Your task to perform on an android device: add a contact in the contacts app Image 0: 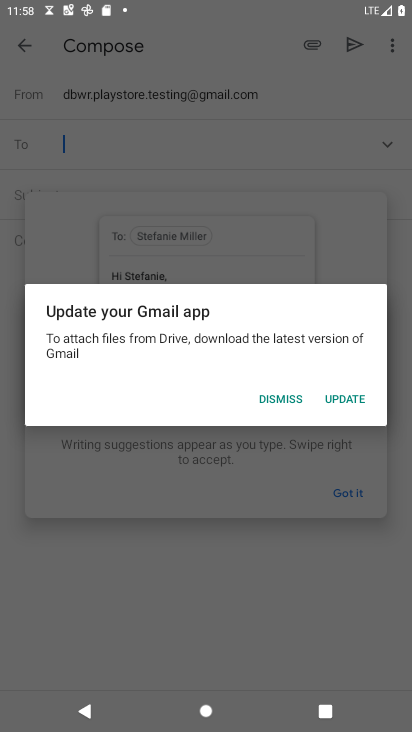
Step 0: press home button
Your task to perform on an android device: add a contact in the contacts app Image 1: 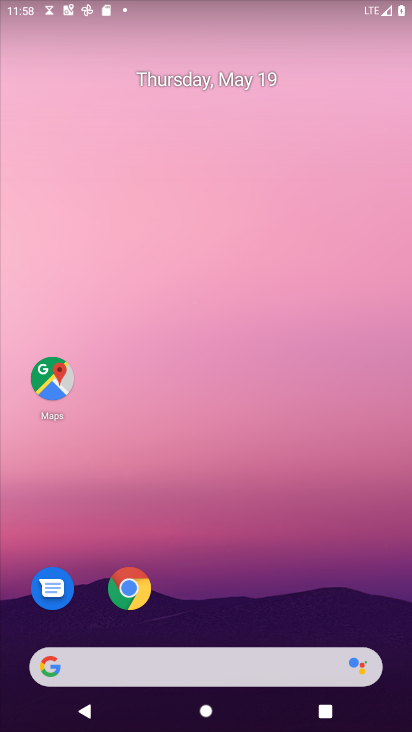
Step 1: drag from (243, 566) to (171, 17)
Your task to perform on an android device: add a contact in the contacts app Image 2: 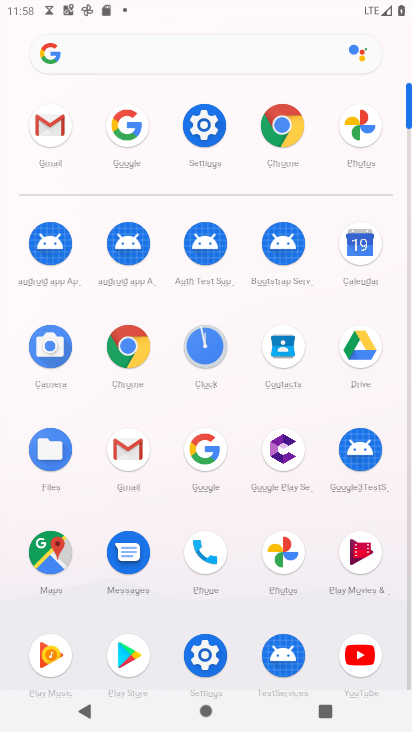
Step 2: click (276, 334)
Your task to perform on an android device: add a contact in the contacts app Image 3: 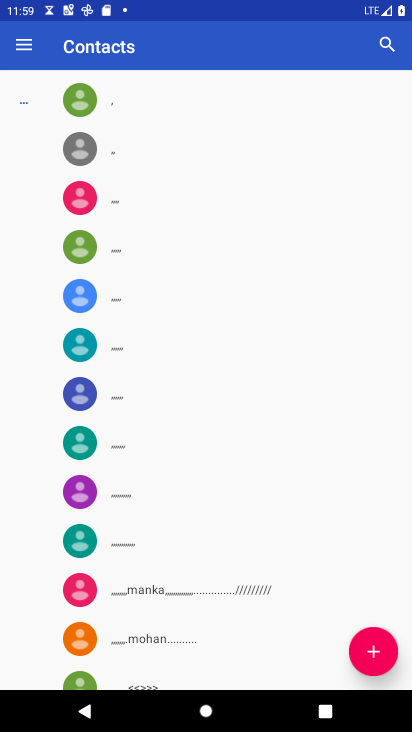
Step 3: click (382, 646)
Your task to perform on an android device: add a contact in the contacts app Image 4: 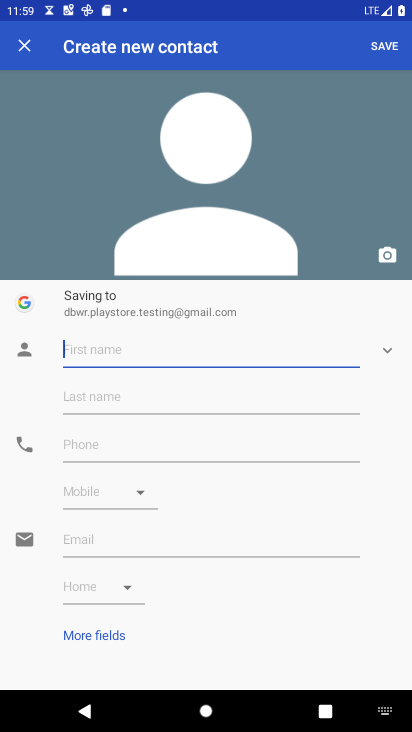
Step 4: type "gsdfgs"
Your task to perform on an android device: add a contact in the contacts app Image 5: 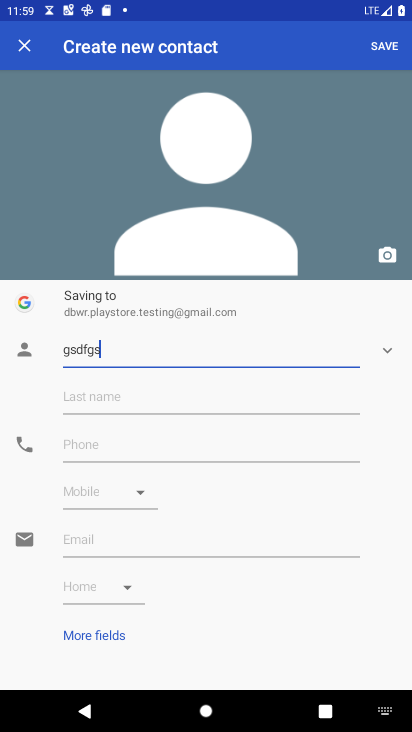
Step 5: type ""
Your task to perform on an android device: add a contact in the contacts app Image 6: 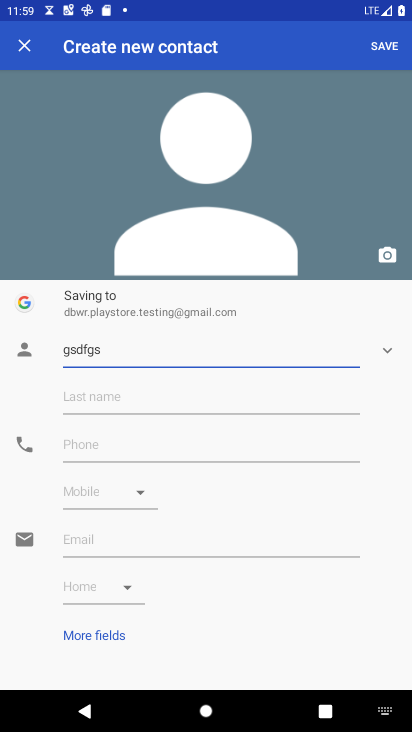
Step 6: click (160, 403)
Your task to perform on an android device: add a contact in the contacts app Image 7: 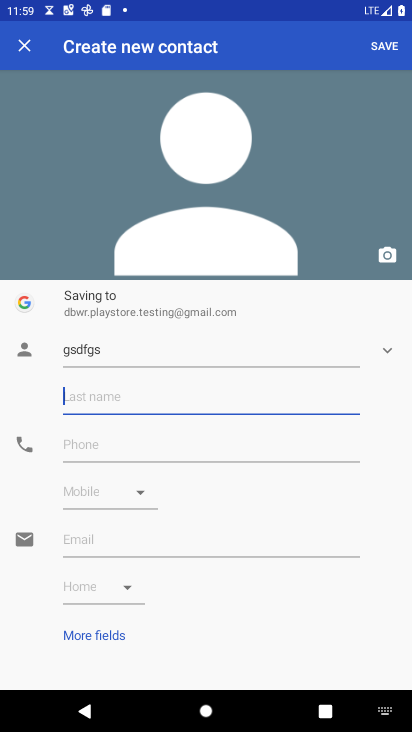
Step 7: type "gfsdf"
Your task to perform on an android device: add a contact in the contacts app Image 8: 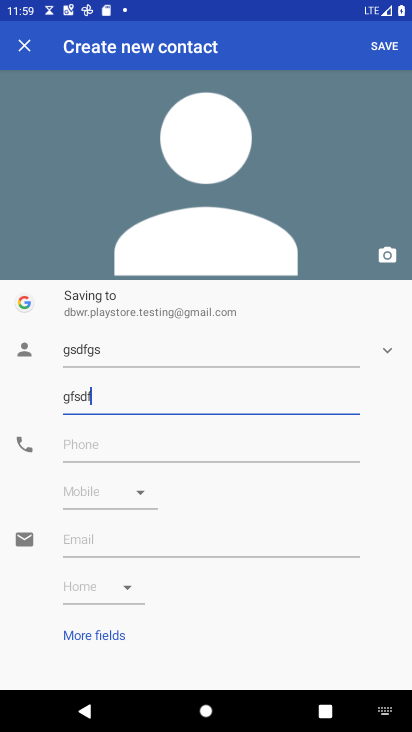
Step 8: type ""
Your task to perform on an android device: add a contact in the contacts app Image 9: 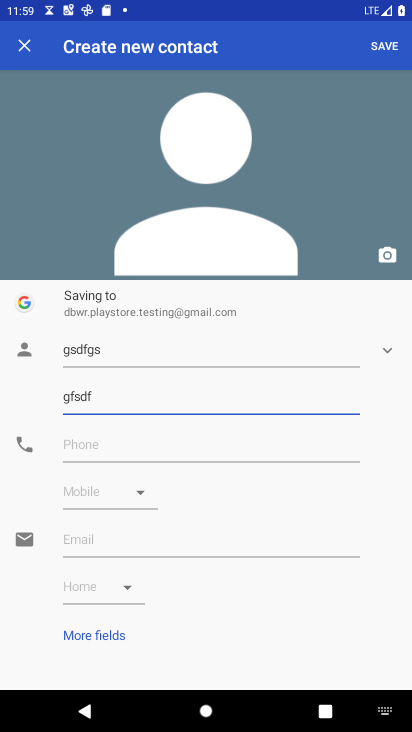
Step 9: click (215, 448)
Your task to perform on an android device: add a contact in the contacts app Image 10: 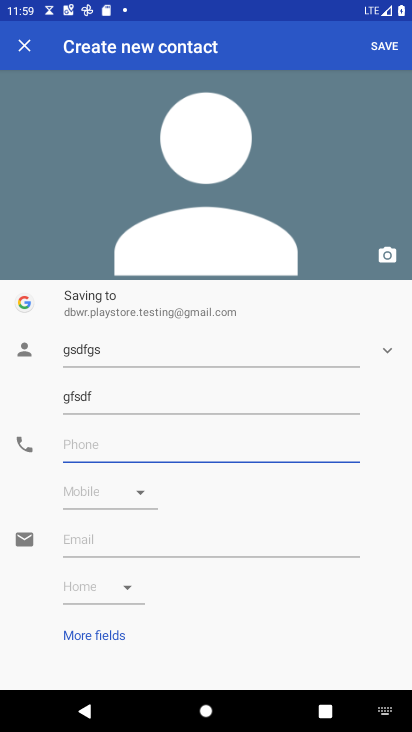
Step 10: type "63456456"
Your task to perform on an android device: add a contact in the contacts app Image 11: 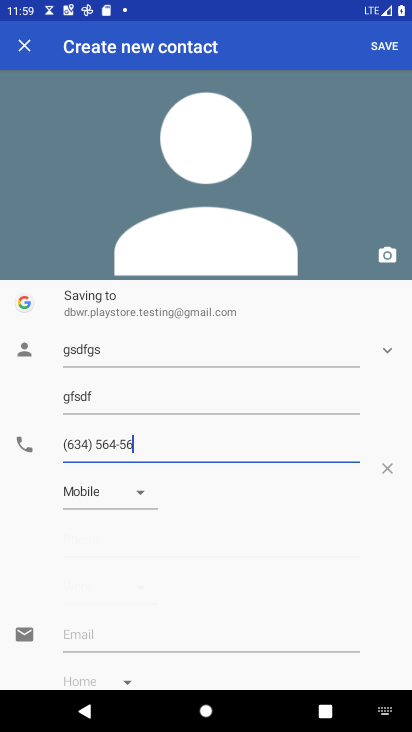
Step 11: type ""
Your task to perform on an android device: add a contact in the contacts app Image 12: 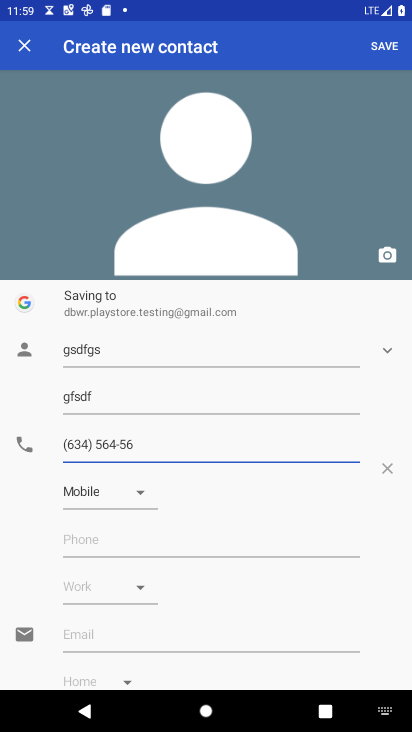
Step 12: click (375, 45)
Your task to perform on an android device: add a contact in the contacts app Image 13: 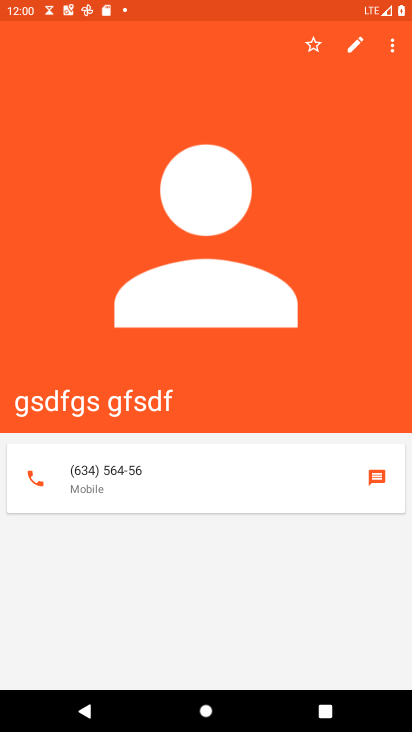
Step 13: task complete